Your task to perform on an android device: Go to sound settings Image 0: 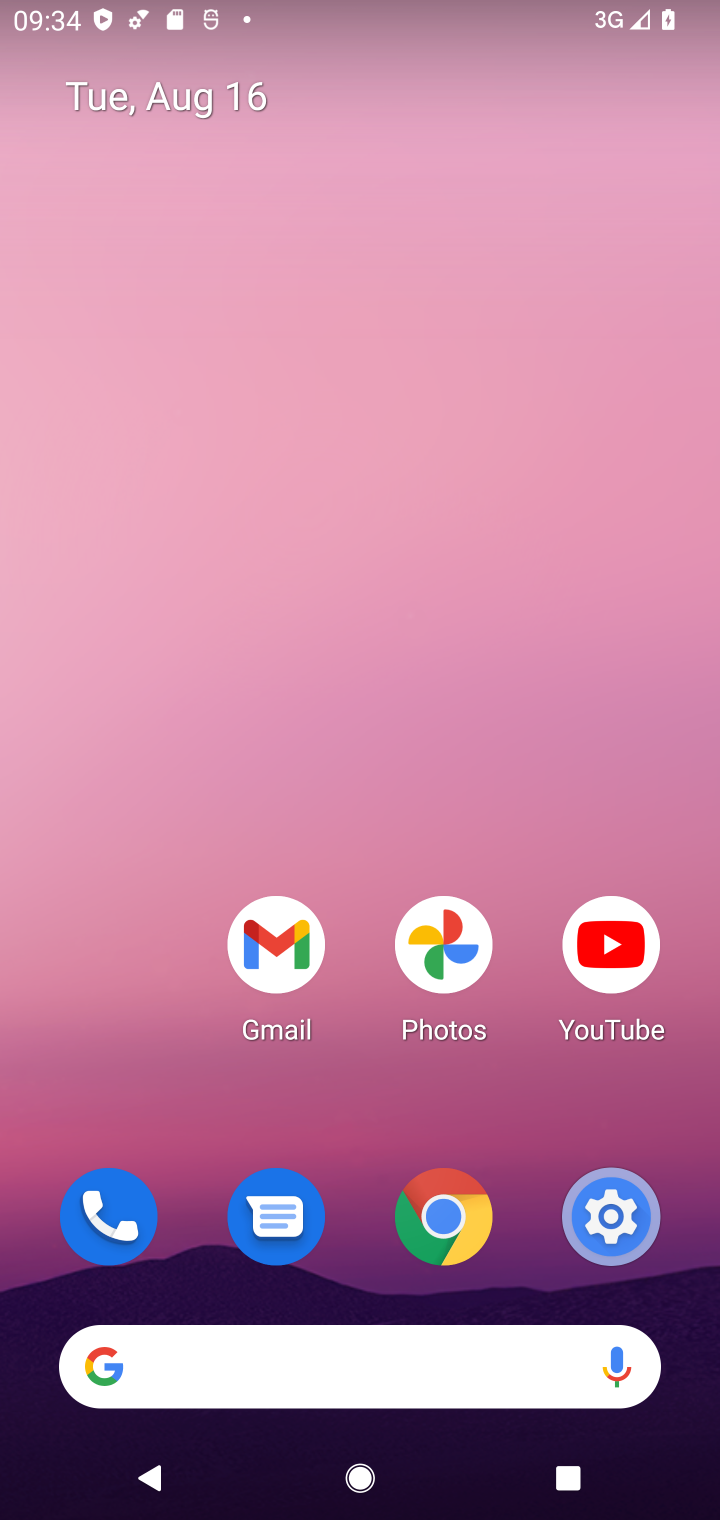
Step 0: drag from (373, 1198) to (368, 176)
Your task to perform on an android device: Go to sound settings Image 1: 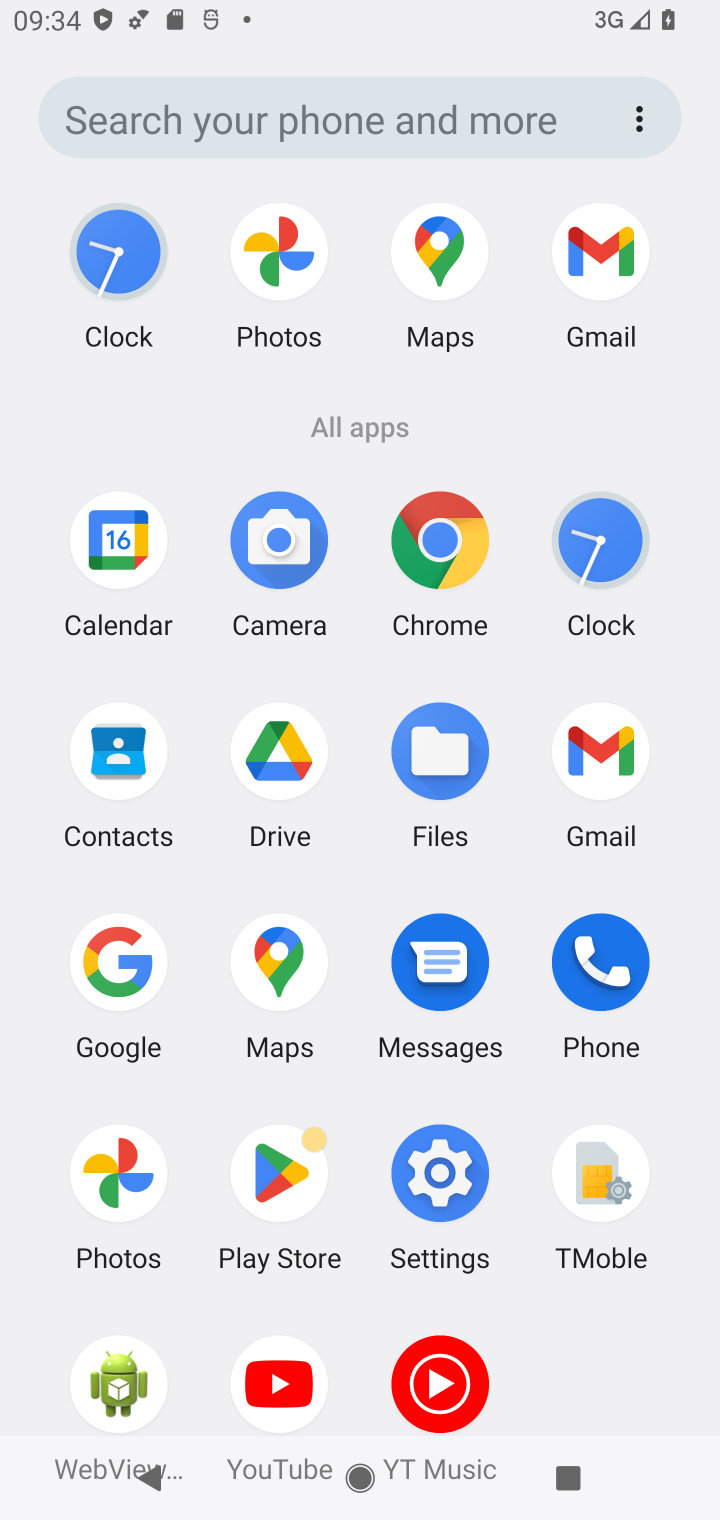
Step 1: click (431, 1176)
Your task to perform on an android device: Go to sound settings Image 2: 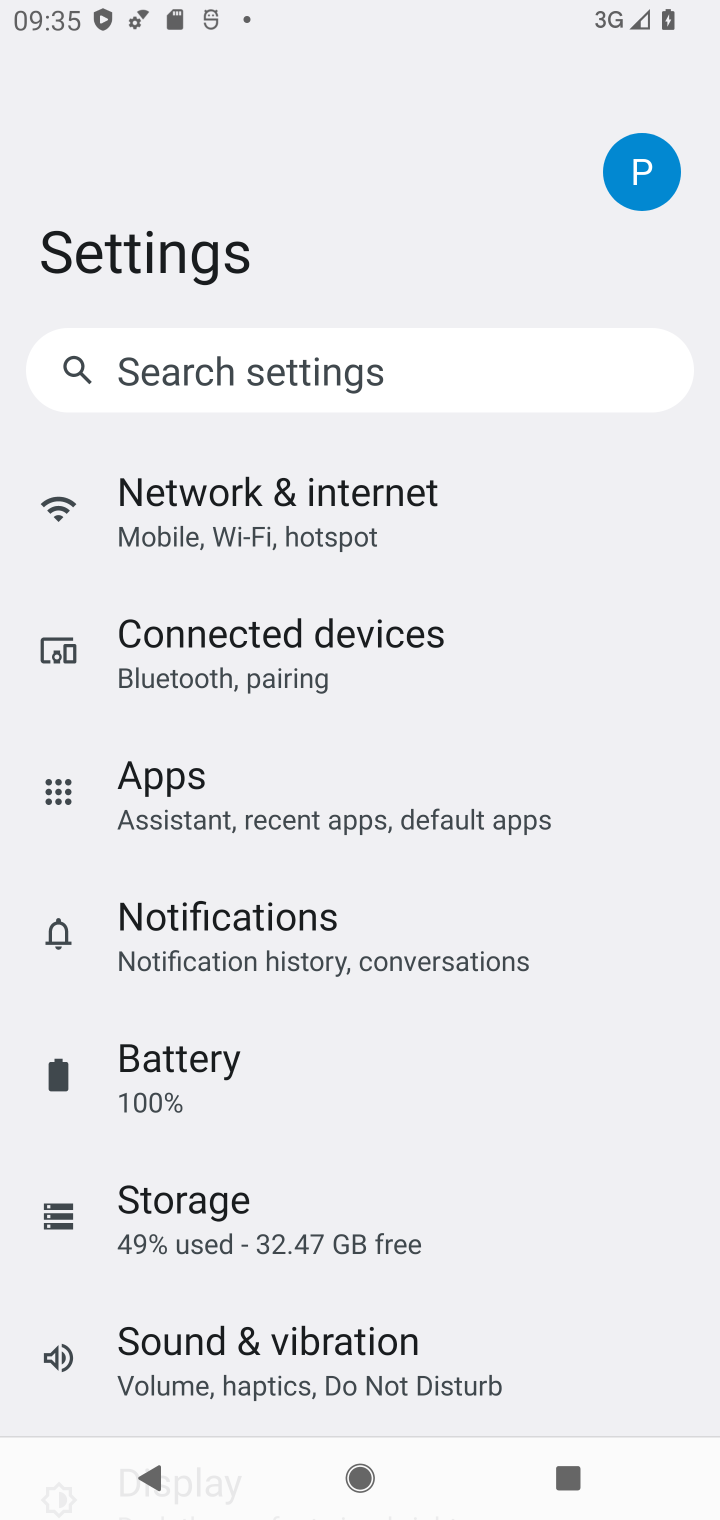
Step 2: drag from (189, 1311) to (251, 673)
Your task to perform on an android device: Go to sound settings Image 3: 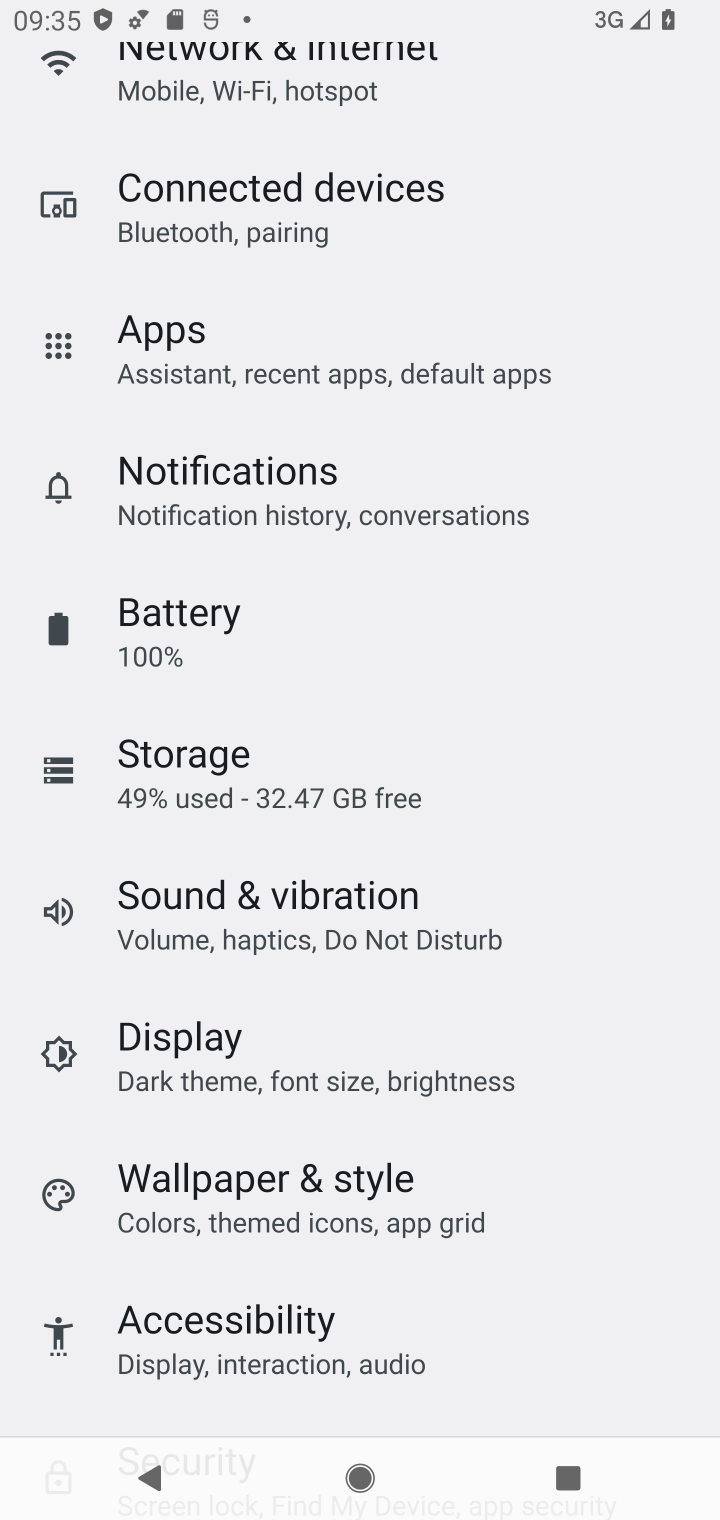
Step 3: click (274, 1019)
Your task to perform on an android device: Go to sound settings Image 4: 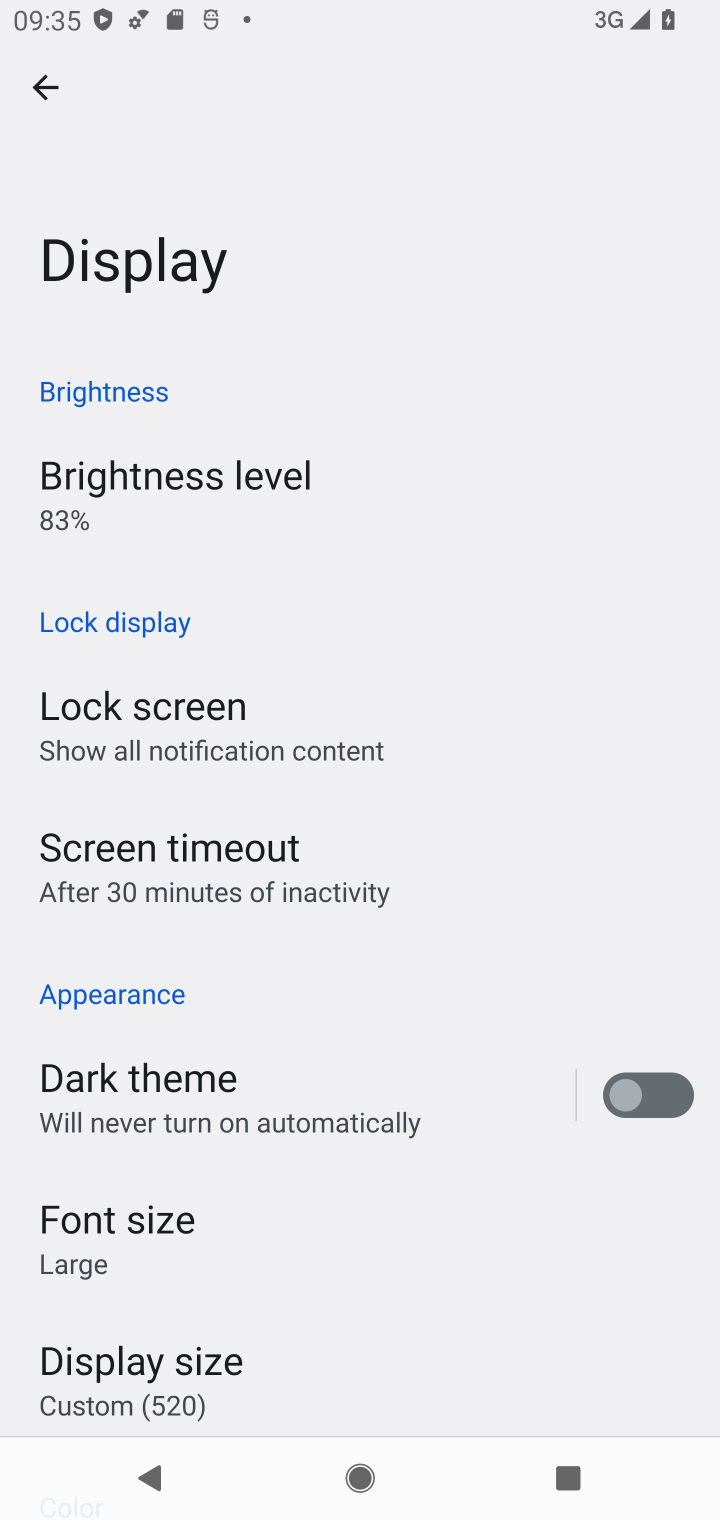
Step 4: task complete